Your task to perform on an android device: Open Android settings Image 0: 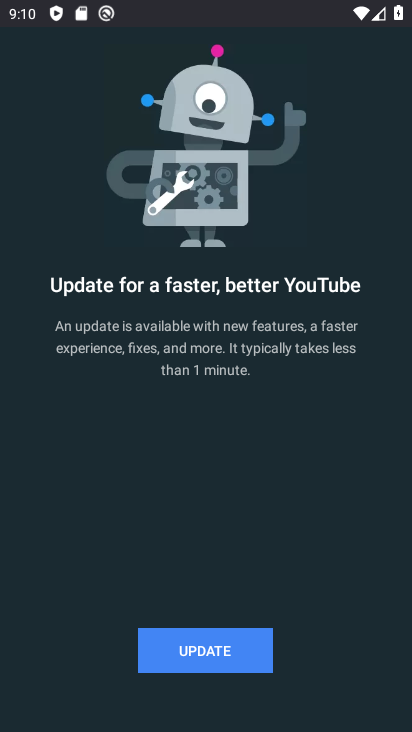
Step 0: press home button
Your task to perform on an android device: Open Android settings Image 1: 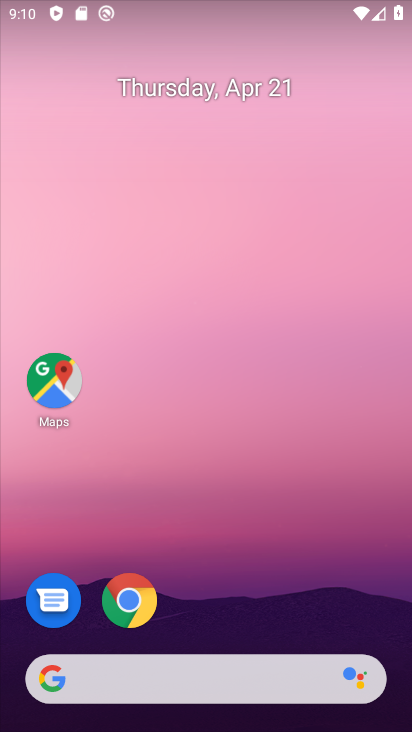
Step 1: drag from (244, 612) to (253, 77)
Your task to perform on an android device: Open Android settings Image 2: 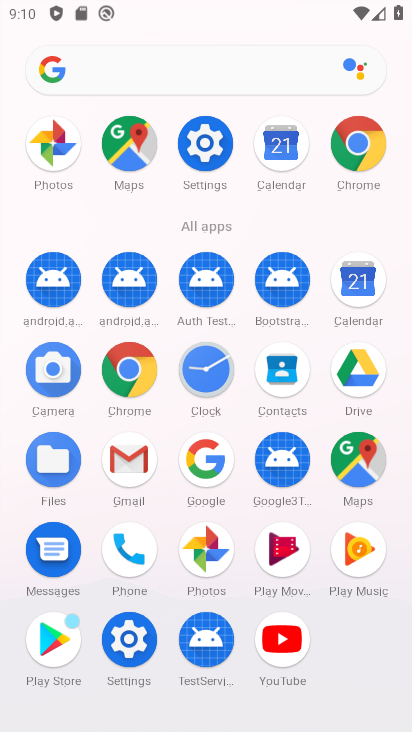
Step 2: click (204, 141)
Your task to perform on an android device: Open Android settings Image 3: 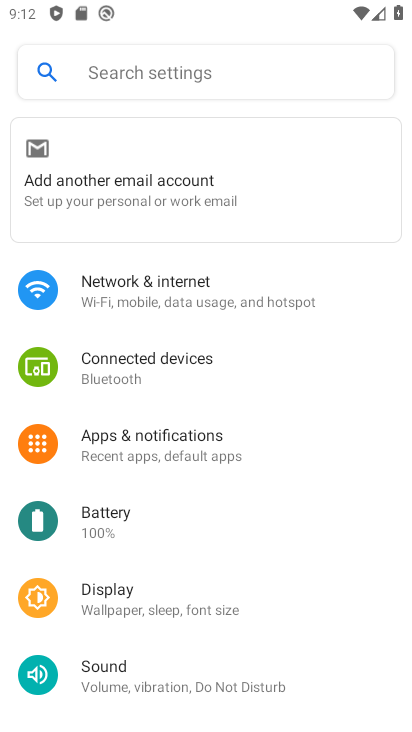
Step 3: task complete